Your task to perform on an android device: empty trash in google photos Image 0: 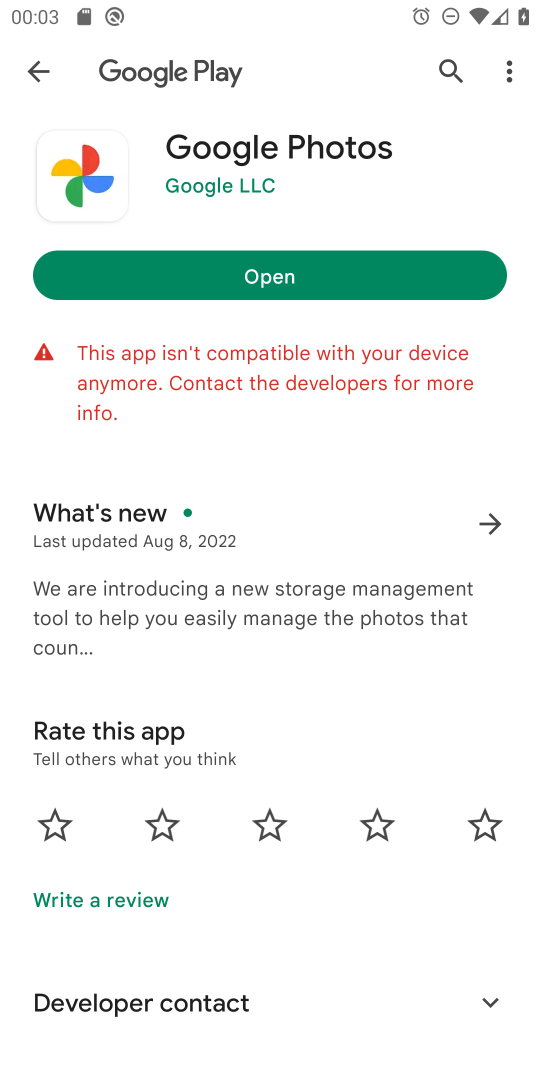
Step 0: press home button
Your task to perform on an android device: empty trash in google photos Image 1: 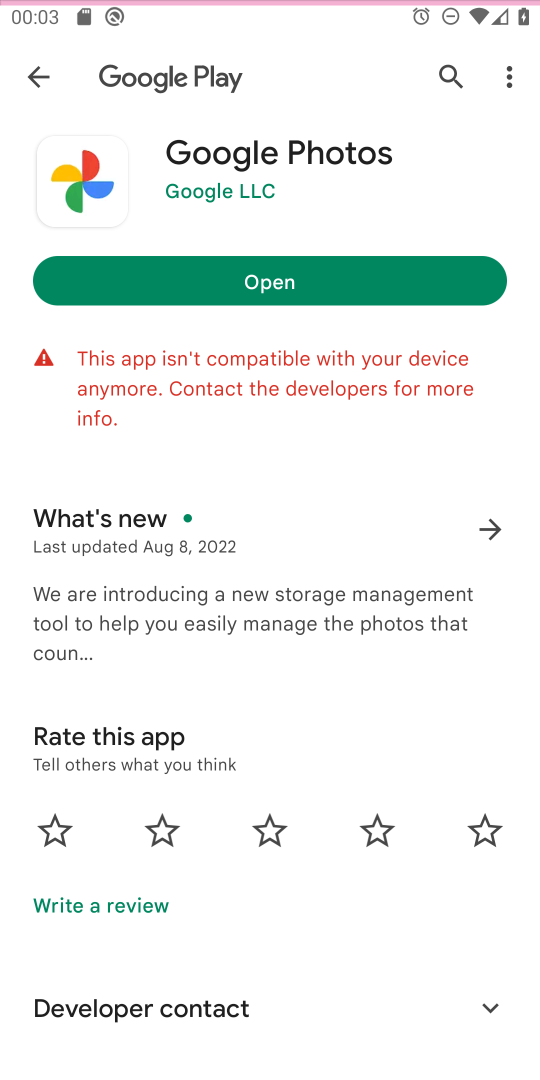
Step 1: press home button
Your task to perform on an android device: empty trash in google photos Image 2: 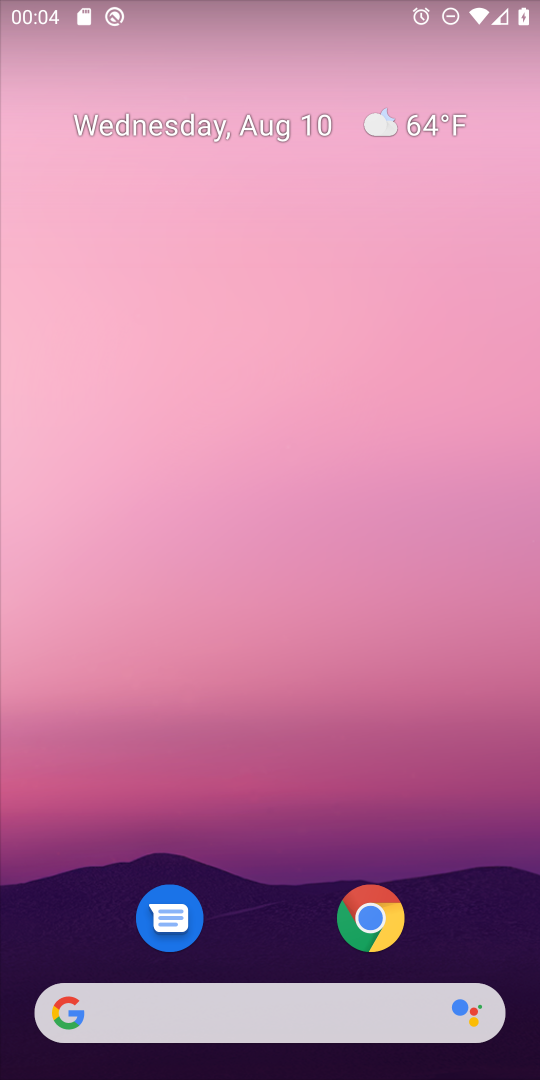
Step 2: drag from (264, 899) to (381, 191)
Your task to perform on an android device: empty trash in google photos Image 3: 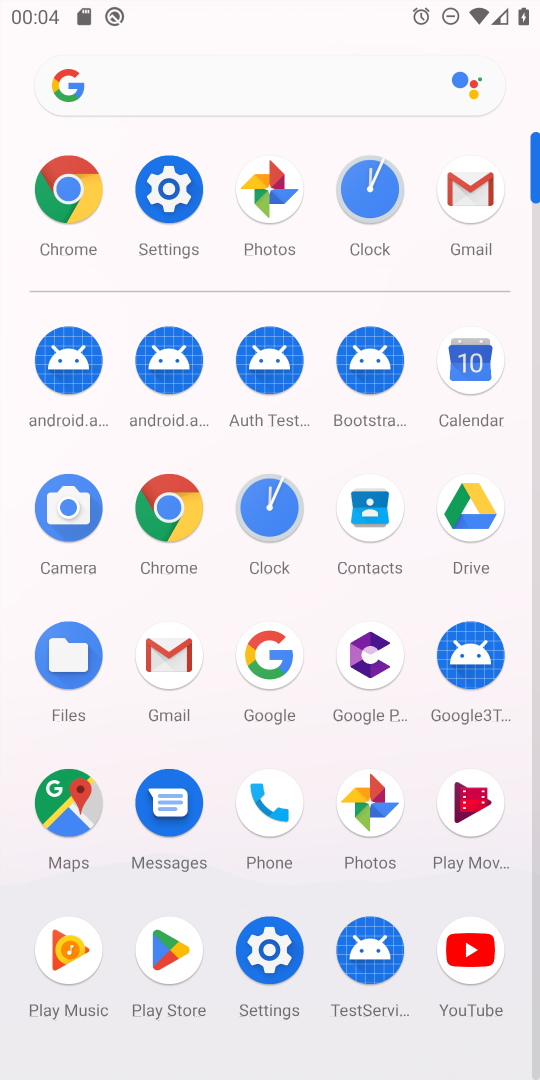
Step 3: click (374, 794)
Your task to perform on an android device: empty trash in google photos Image 4: 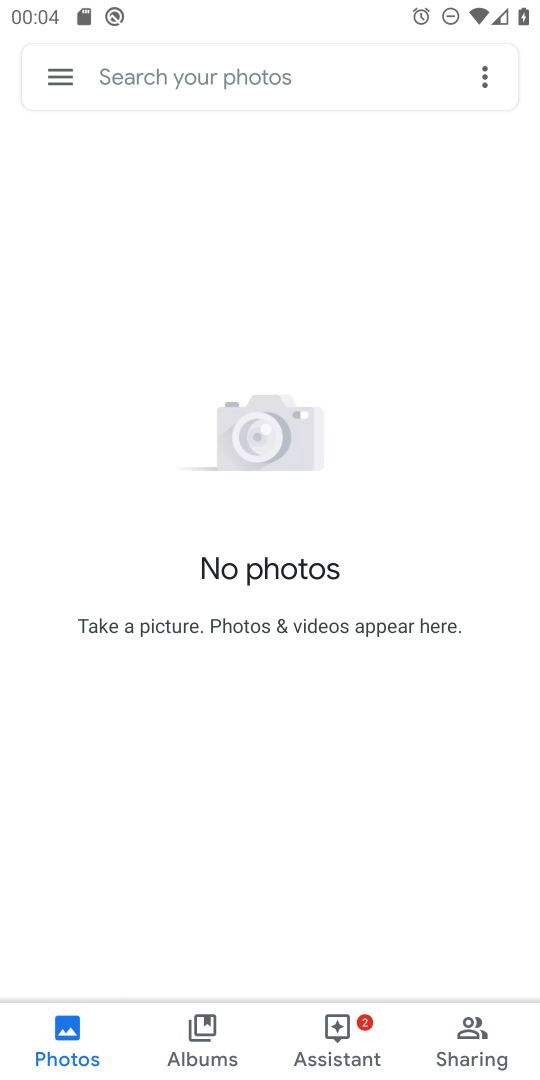
Step 4: click (66, 60)
Your task to perform on an android device: empty trash in google photos Image 5: 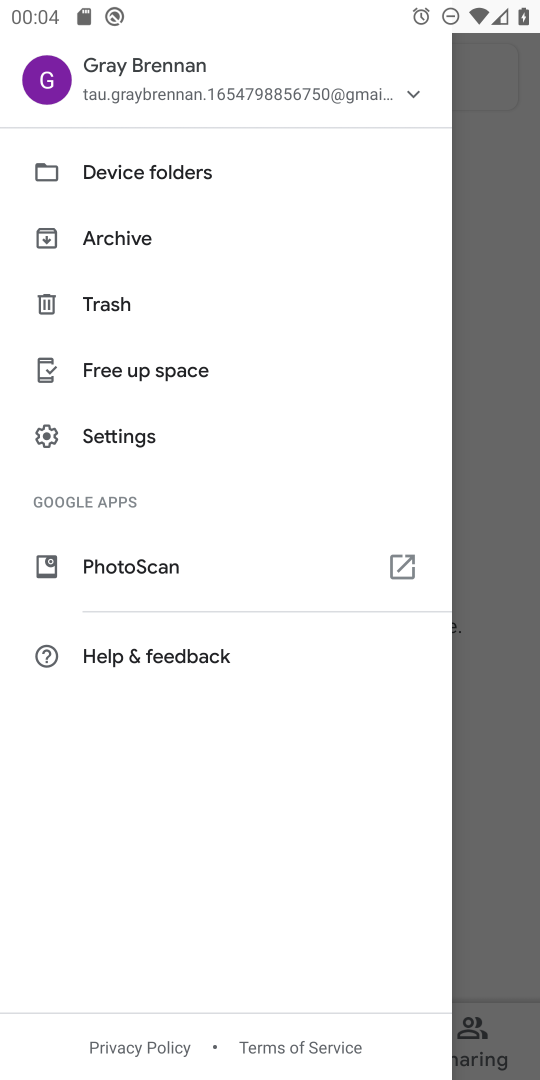
Step 5: click (125, 300)
Your task to perform on an android device: empty trash in google photos Image 6: 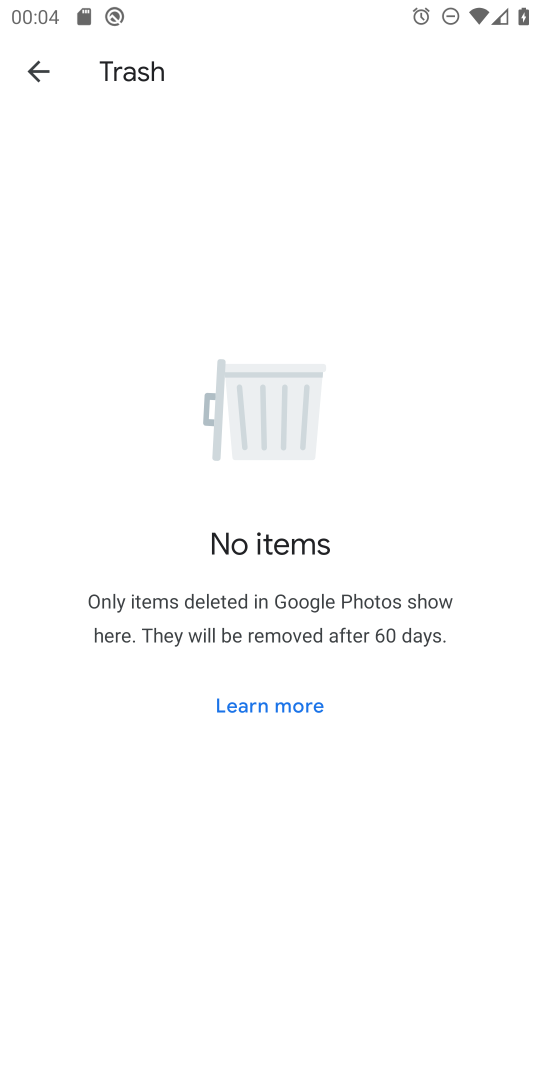
Step 6: task complete